Your task to perform on an android device: change timer sound Image 0: 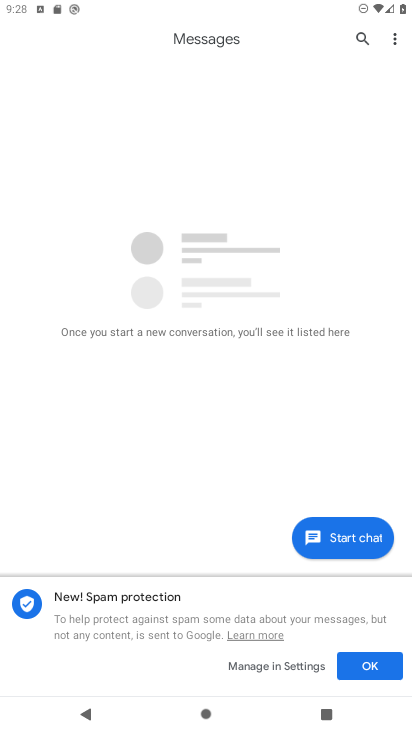
Step 0: press home button
Your task to perform on an android device: change timer sound Image 1: 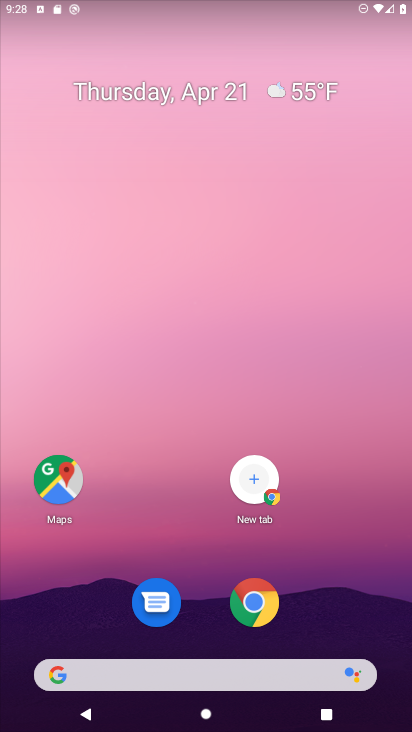
Step 1: drag from (204, 620) to (263, 113)
Your task to perform on an android device: change timer sound Image 2: 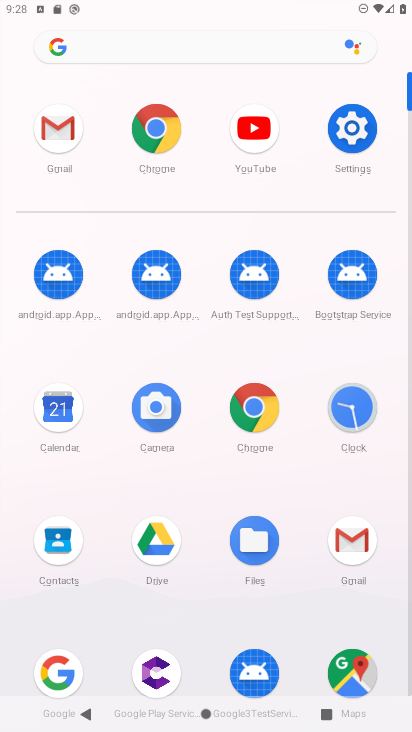
Step 2: click (359, 404)
Your task to perform on an android device: change timer sound Image 3: 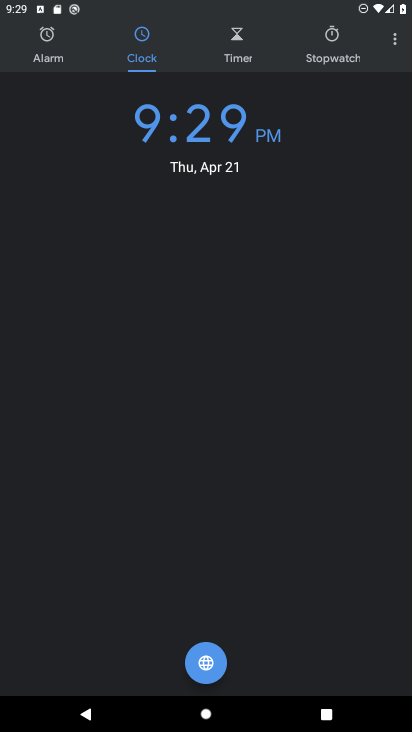
Step 3: click (385, 45)
Your task to perform on an android device: change timer sound Image 4: 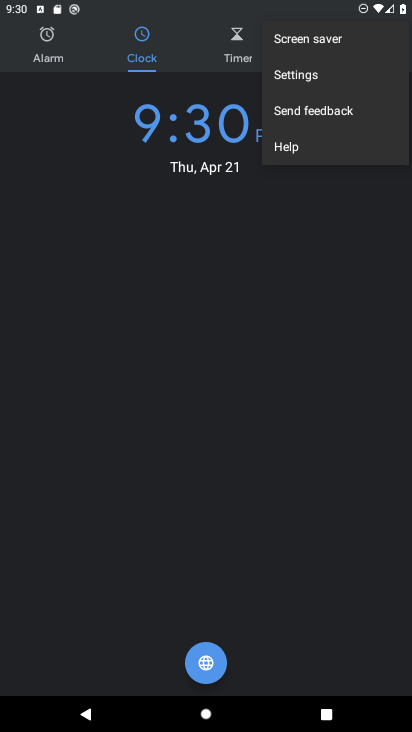
Step 4: click (348, 67)
Your task to perform on an android device: change timer sound Image 5: 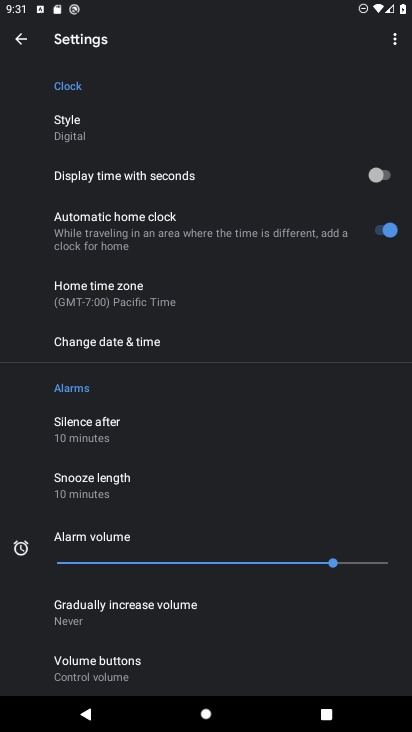
Step 5: drag from (195, 633) to (185, 204)
Your task to perform on an android device: change timer sound Image 6: 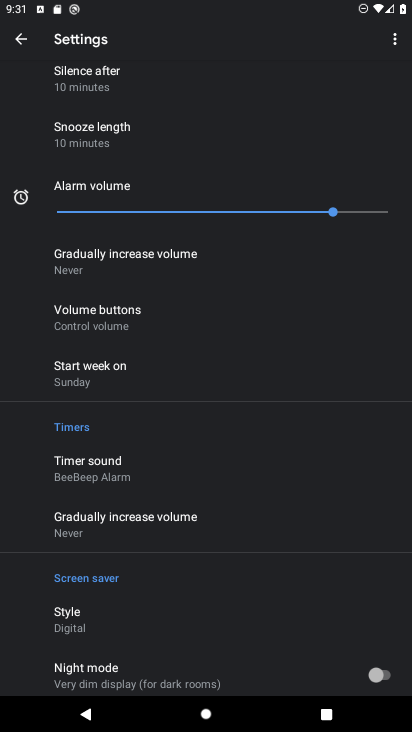
Step 6: click (128, 483)
Your task to perform on an android device: change timer sound Image 7: 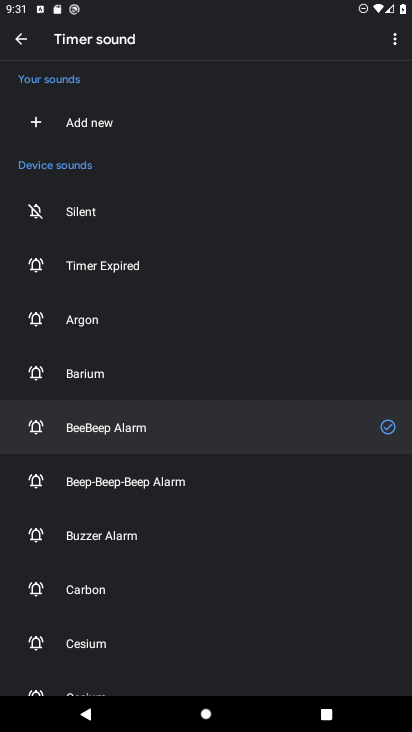
Step 7: task complete